Your task to perform on an android device: Open internet settings Image 0: 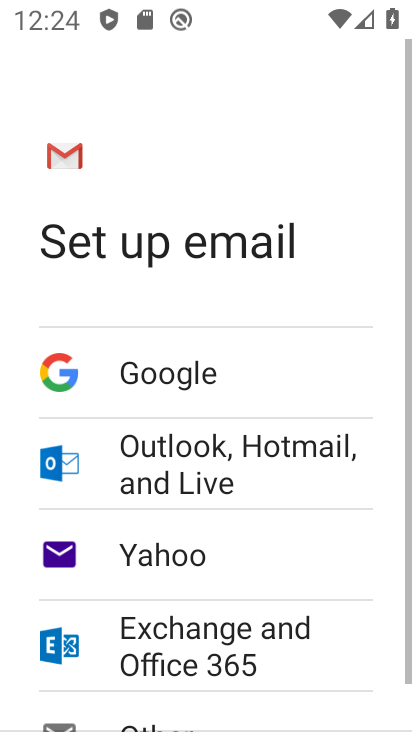
Step 0: press home button
Your task to perform on an android device: Open internet settings Image 1: 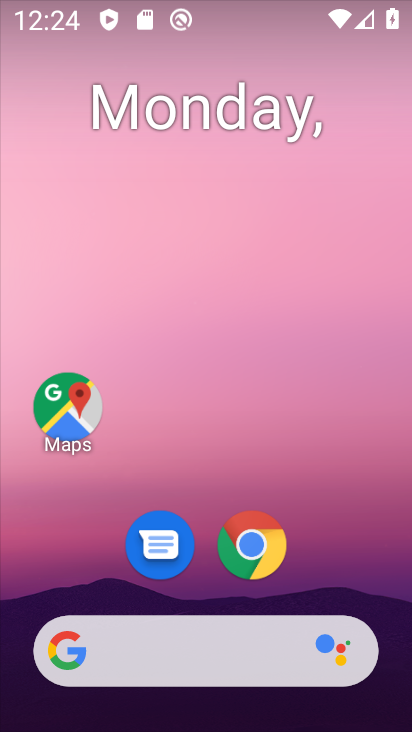
Step 1: drag from (331, 571) to (304, 162)
Your task to perform on an android device: Open internet settings Image 2: 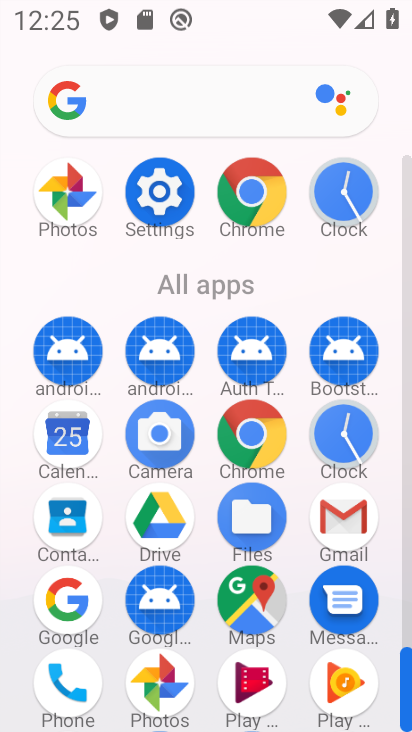
Step 2: click (168, 192)
Your task to perform on an android device: Open internet settings Image 3: 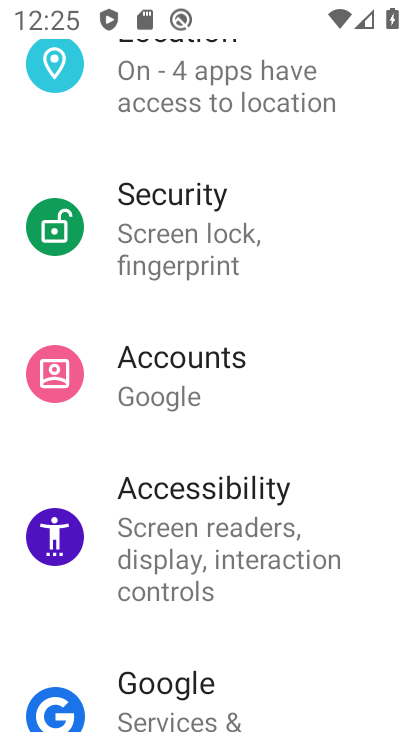
Step 3: drag from (199, 328) to (187, 510)
Your task to perform on an android device: Open internet settings Image 4: 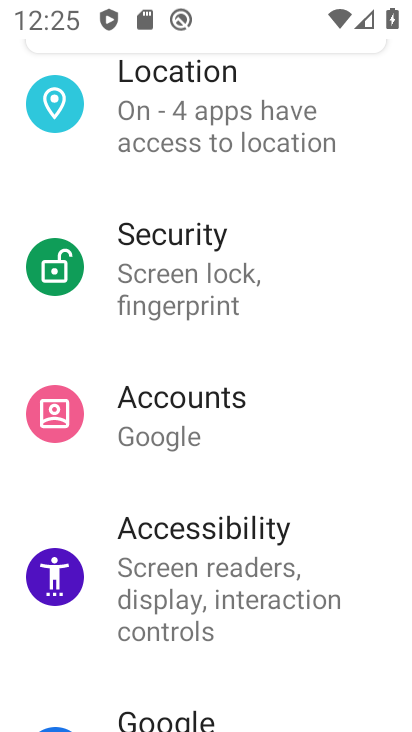
Step 4: drag from (270, 193) to (210, 654)
Your task to perform on an android device: Open internet settings Image 5: 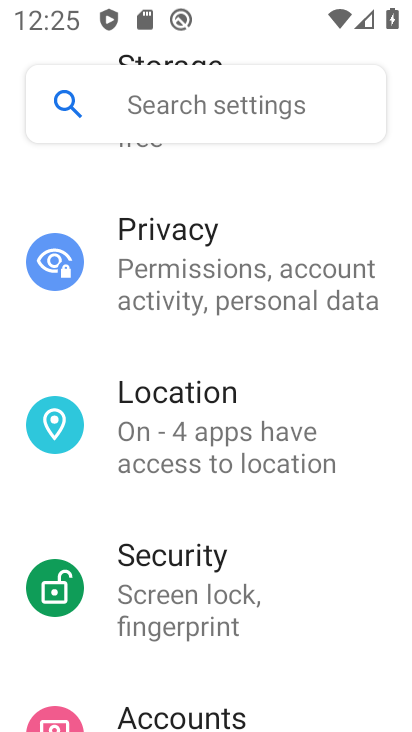
Step 5: drag from (241, 229) to (202, 709)
Your task to perform on an android device: Open internet settings Image 6: 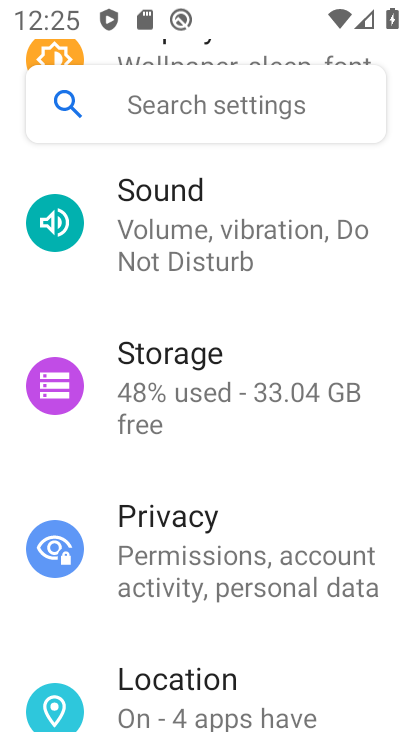
Step 6: drag from (250, 199) to (232, 687)
Your task to perform on an android device: Open internet settings Image 7: 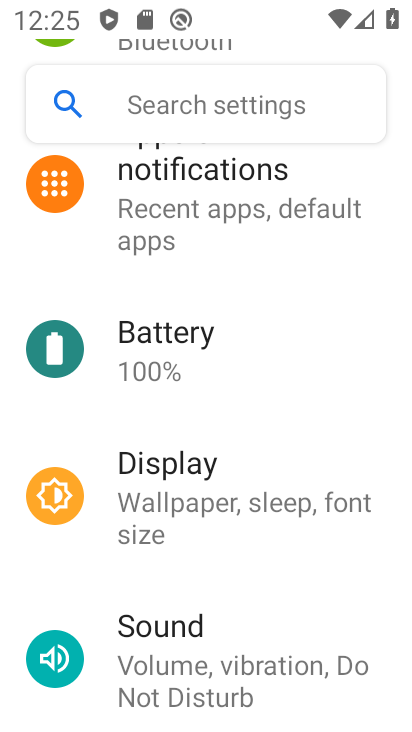
Step 7: drag from (251, 321) to (249, 731)
Your task to perform on an android device: Open internet settings Image 8: 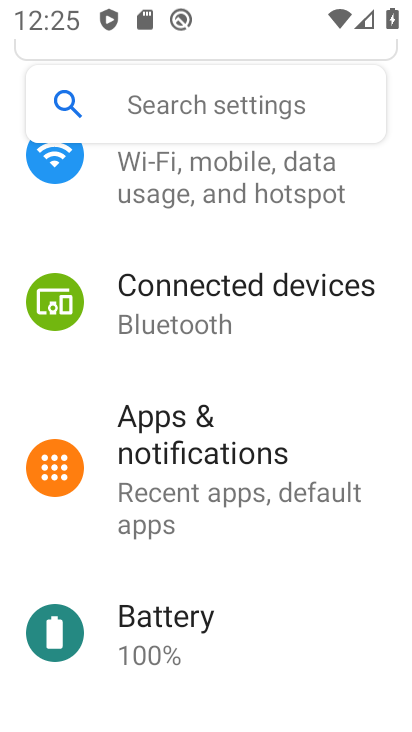
Step 8: drag from (273, 242) to (249, 602)
Your task to perform on an android device: Open internet settings Image 9: 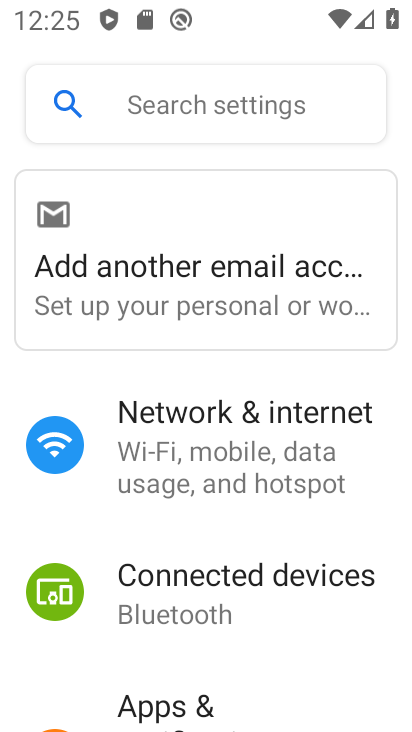
Step 9: click (219, 427)
Your task to perform on an android device: Open internet settings Image 10: 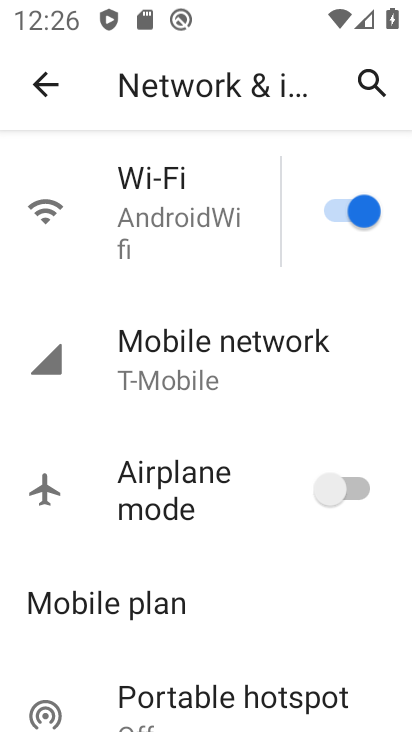
Step 10: task complete